Your task to perform on an android device: Check the news Image 0: 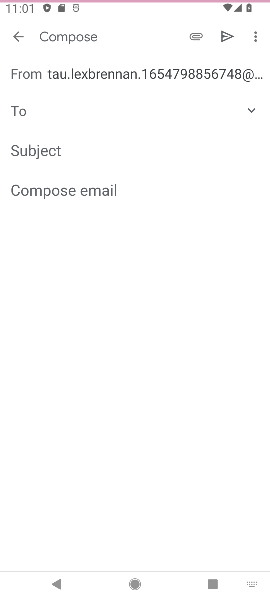
Step 0: press back button
Your task to perform on an android device: Check the news Image 1: 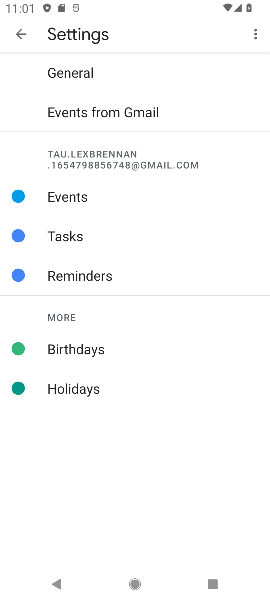
Step 1: press home button
Your task to perform on an android device: Check the news Image 2: 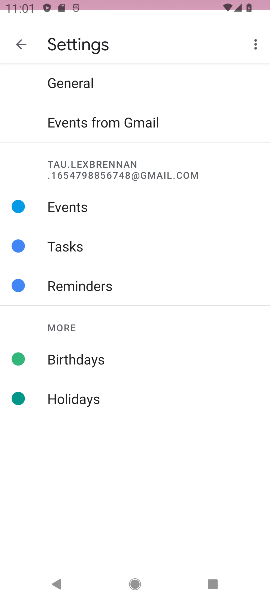
Step 2: click (20, 34)
Your task to perform on an android device: Check the news Image 3: 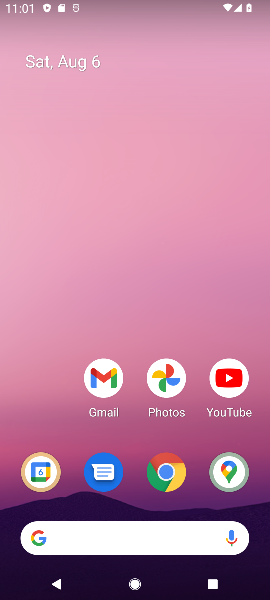
Step 3: drag from (147, 420) to (129, 160)
Your task to perform on an android device: Check the news Image 4: 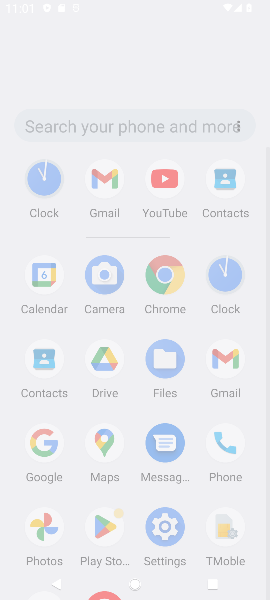
Step 4: drag from (164, 389) to (139, 88)
Your task to perform on an android device: Check the news Image 5: 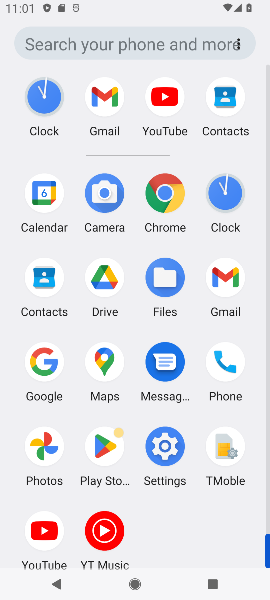
Step 5: drag from (117, 237) to (102, 127)
Your task to perform on an android device: Check the news Image 6: 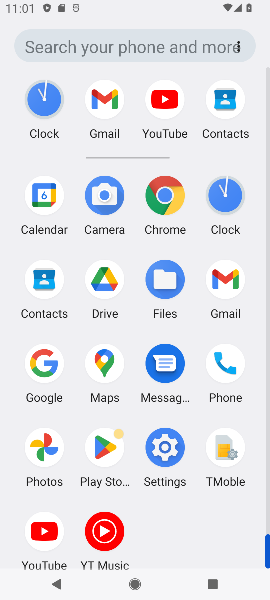
Step 6: click (148, 197)
Your task to perform on an android device: Check the news Image 7: 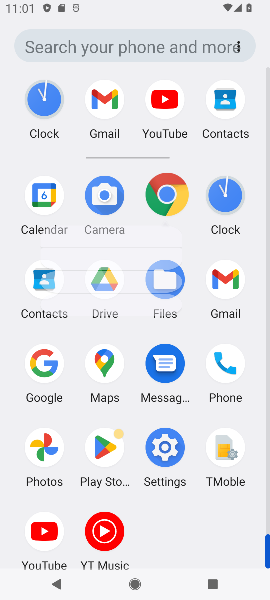
Step 7: click (152, 195)
Your task to perform on an android device: Check the news Image 8: 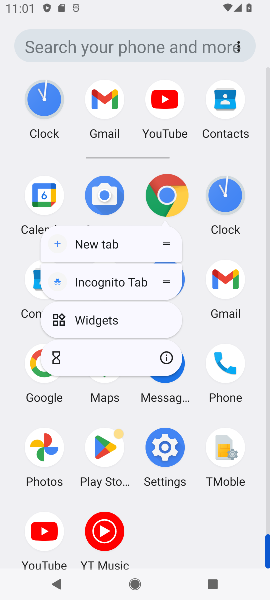
Step 8: click (154, 195)
Your task to perform on an android device: Check the news Image 9: 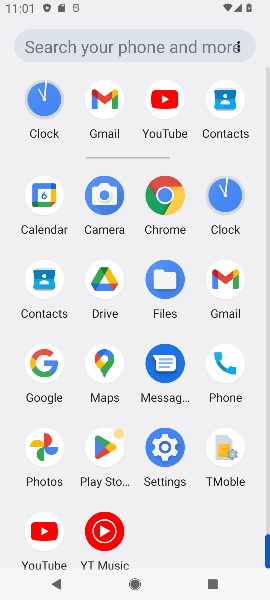
Step 9: click (162, 195)
Your task to perform on an android device: Check the news Image 10: 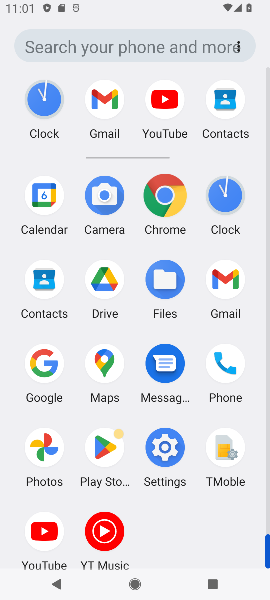
Step 10: click (176, 200)
Your task to perform on an android device: Check the news Image 11: 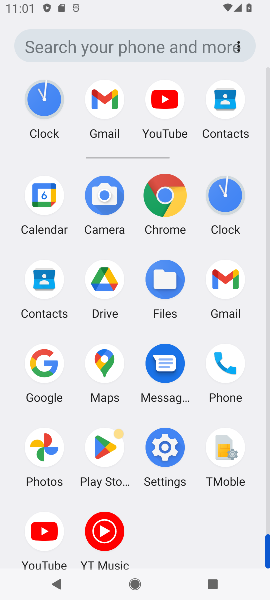
Step 11: click (177, 204)
Your task to perform on an android device: Check the news Image 12: 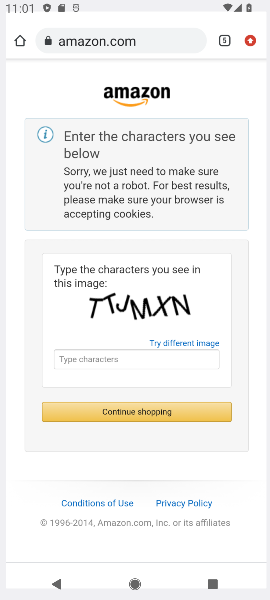
Step 12: click (178, 204)
Your task to perform on an android device: Check the news Image 13: 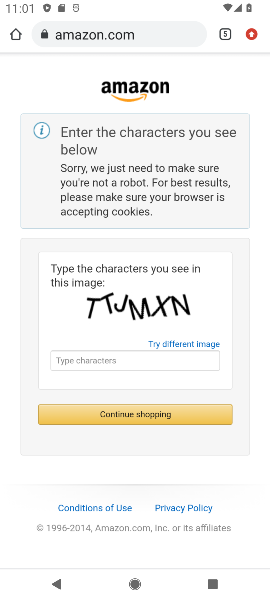
Step 13: click (158, 197)
Your task to perform on an android device: Check the news Image 14: 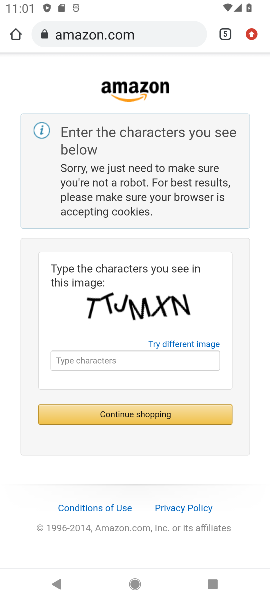
Step 14: drag from (255, 37) to (169, 119)
Your task to perform on an android device: Check the news Image 15: 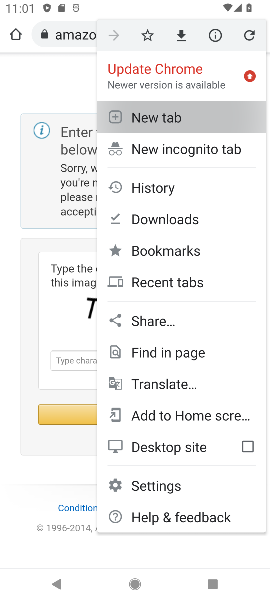
Step 15: click (168, 119)
Your task to perform on an android device: Check the news Image 16: 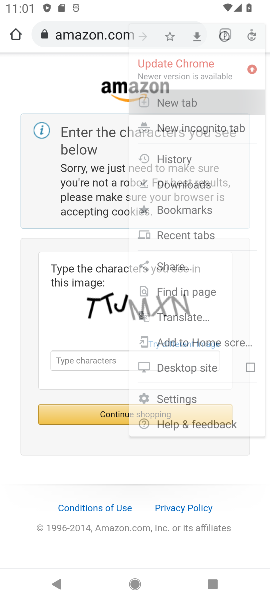
Step 16: click (167, 119)
Your task to perform on an android device: Check the news Image 17: 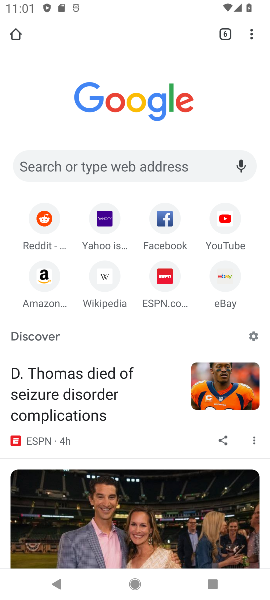
Step 17: task complete